Your task to perform on an android device: Go to Wikipedia Image 0: 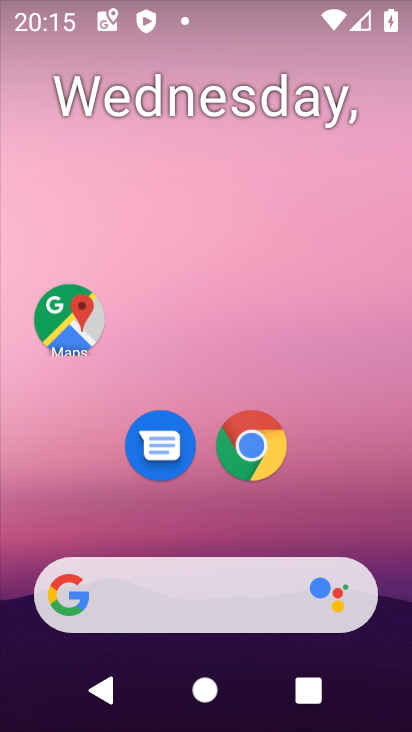
Step 0: click (259, 434)
Your task to perform on an android device: Go to Wikipedia Image 1: 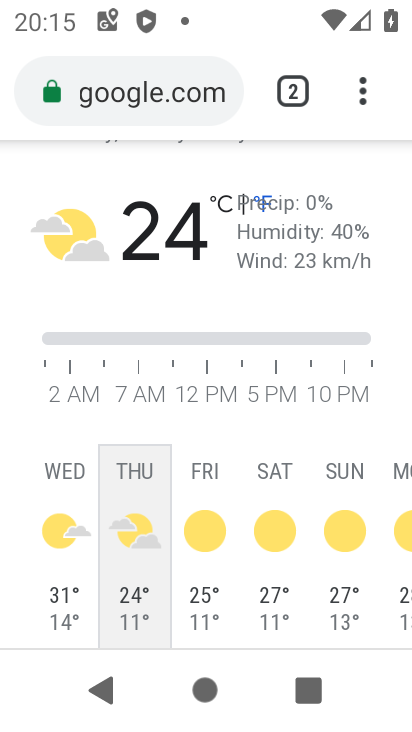
Step 1: click (362, 91)
Your task to perform on an android device: Go to Wikipedia Image 2: 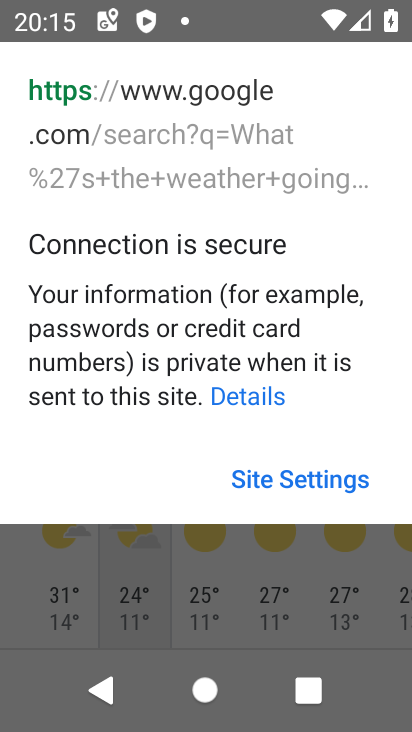
Step 2: click (288, 475)
Your task to perform on an android device: Go to Wikipedia Image 3: 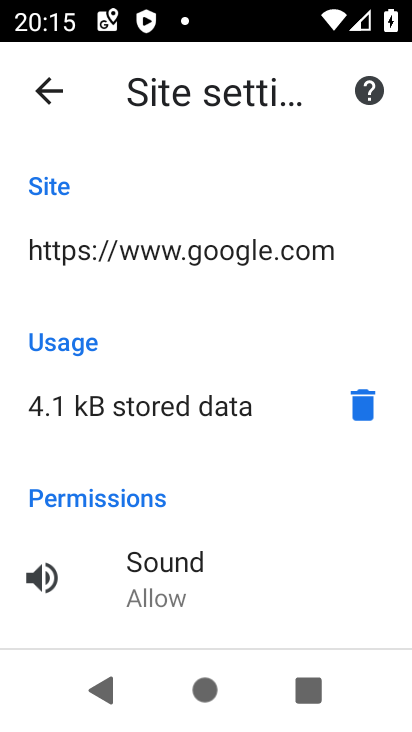
Step 3: click (58, 101)
Your task to perform on an android device: Go to Wikipedia Image 4: 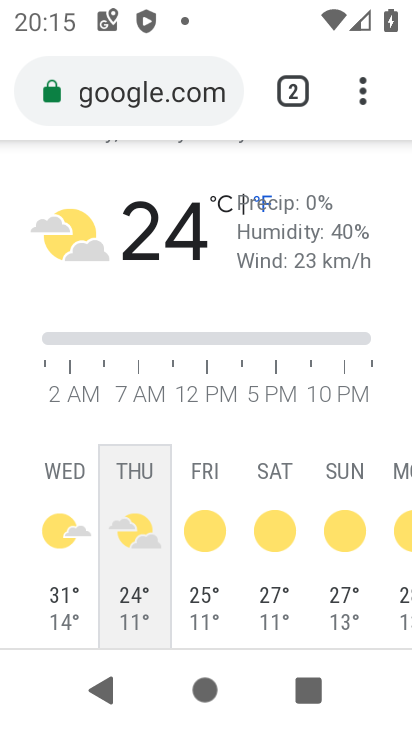
Step 4: click (372, 82)
Your task to perform on an android device: Go to Wikipedia Image 5: 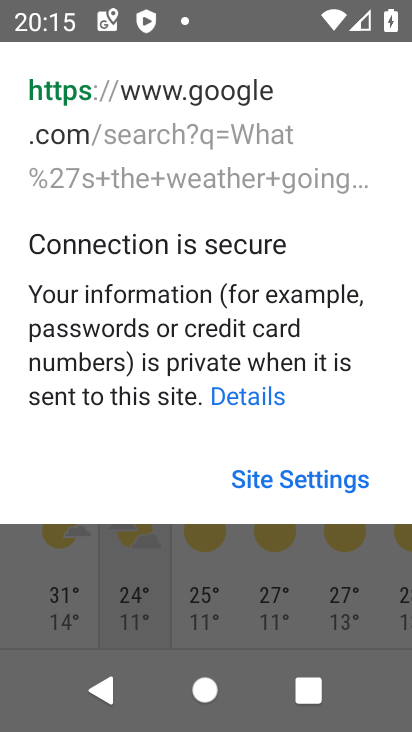
Step 5: press back button
Your task to perform on an android device: Go to Wikipedia Image 6: 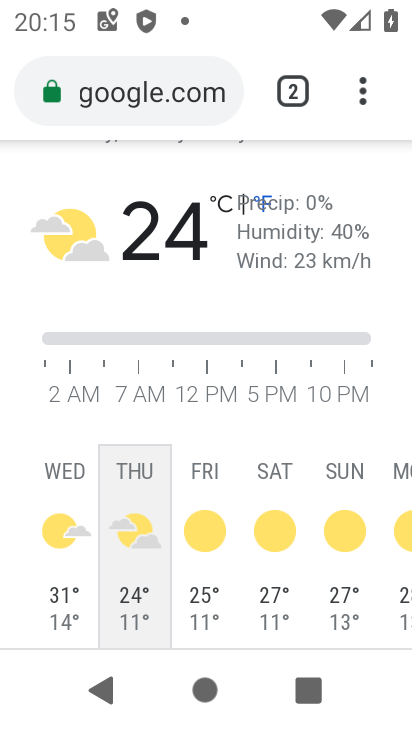
Step 6: click (389, 89)
Your task to perform on an android device: Go to Wikipedia Image 7: 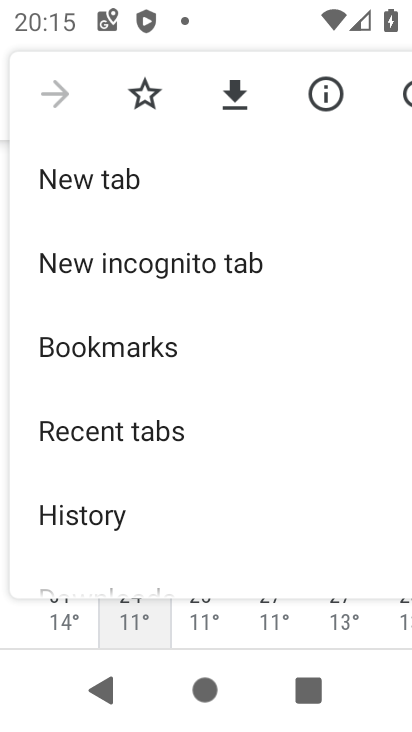
Step 7: click (135, 169)
Your task to perform on an android device: Go to Wikipedia Image 8: 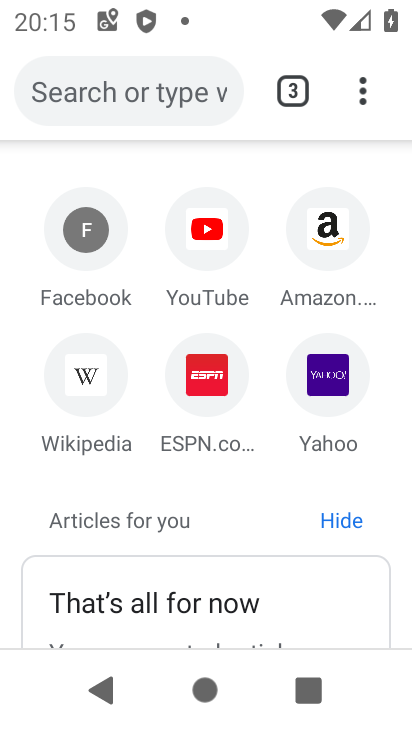
Step 8: click (94, 372)
Your task to perform on an android device: Go to Wikipedia Image 9: 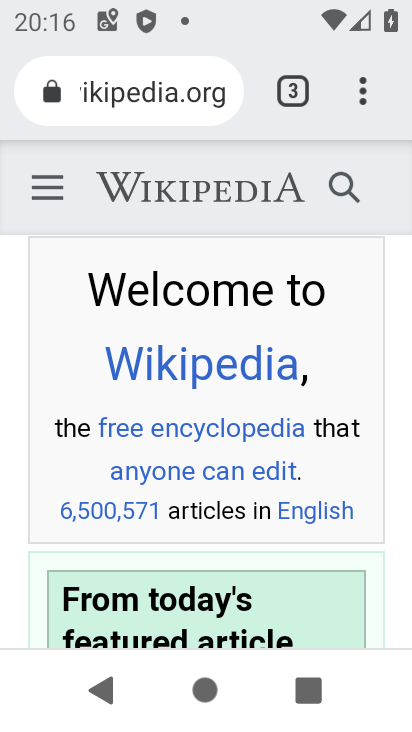
Step 9: task complete